Your task to perform on an android device: open app "PlayWell" (install if not already installed), go to login, and select forgot password Image 0: 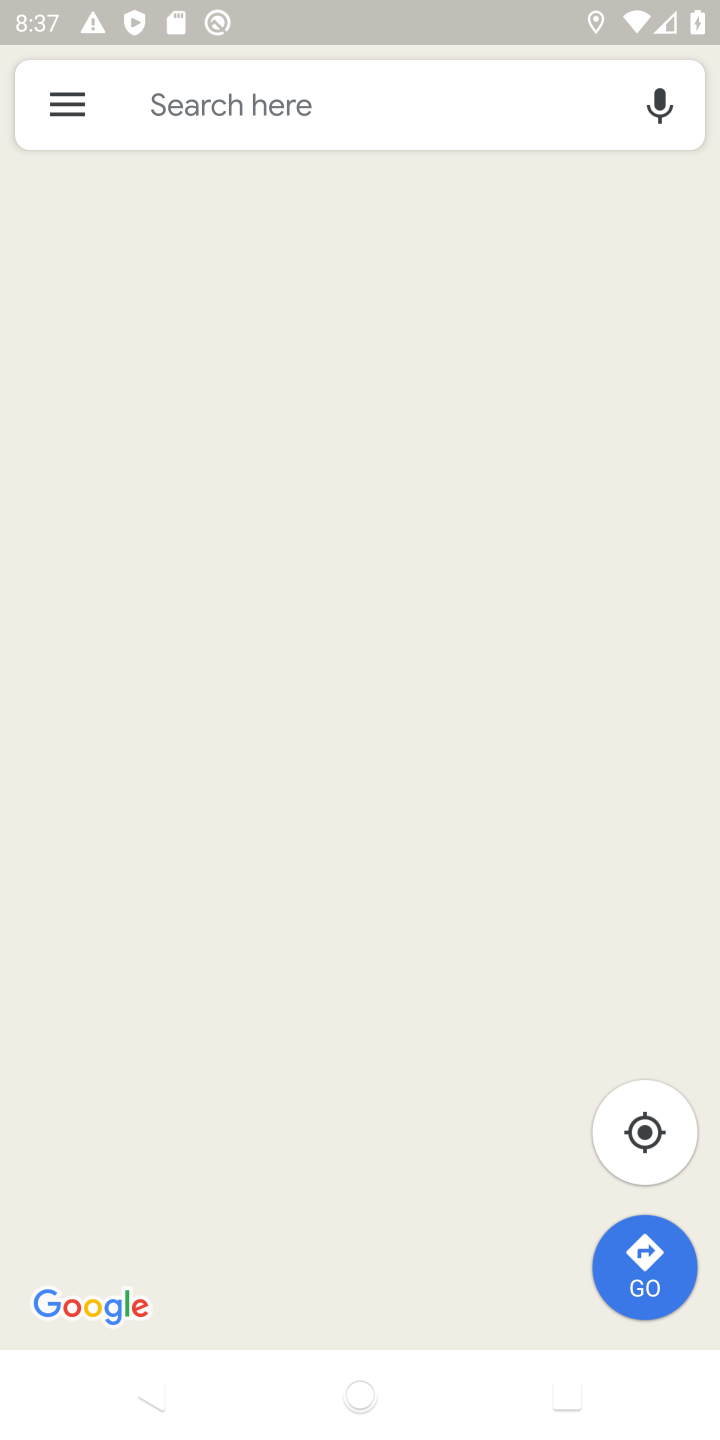
Step 0: press home button
Your task to perform on an android device: open app "PlayWell" (install if not already installed), go to login, and select forgot password Image 1: 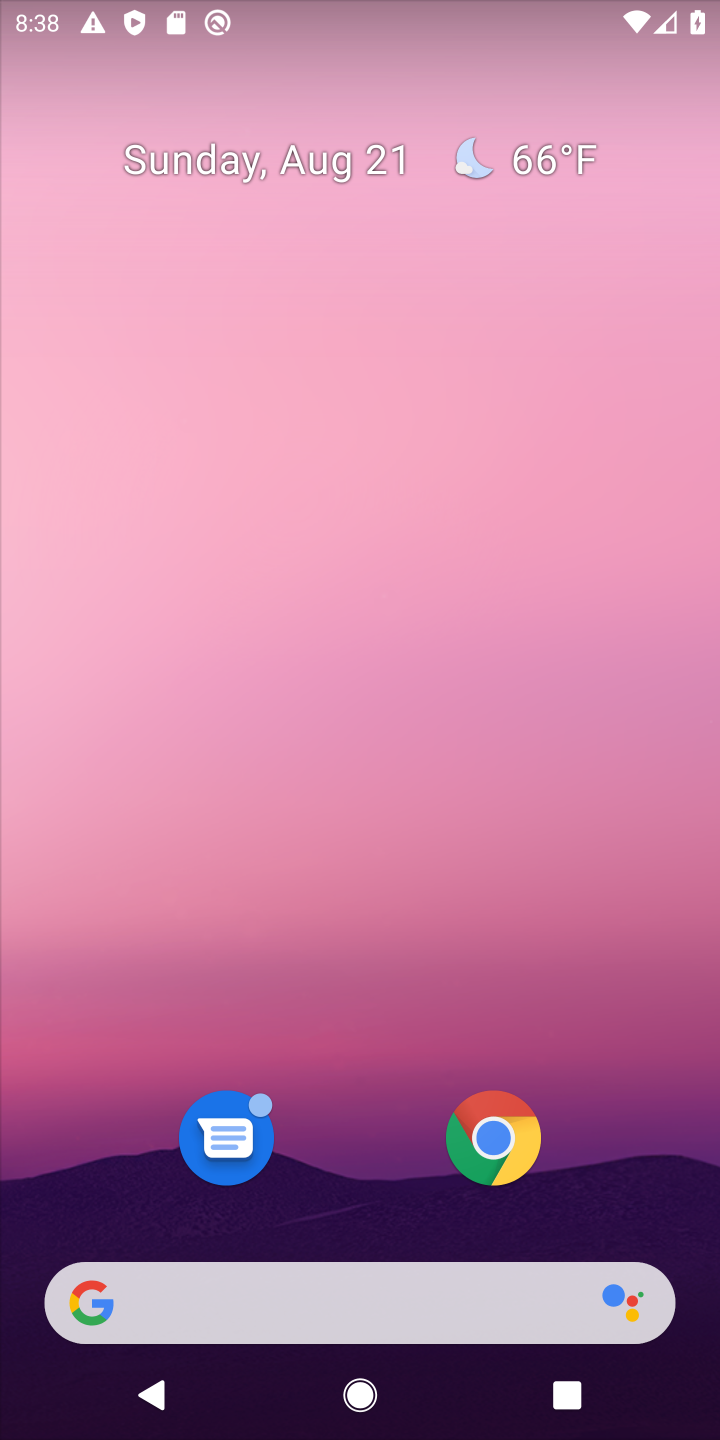
Step 1: drag from (628, 1109) to (624, 185)
Your task to perform on an android device: open app "PlayWell" (install if not already installed), go to login, and select forgot password Image 2: 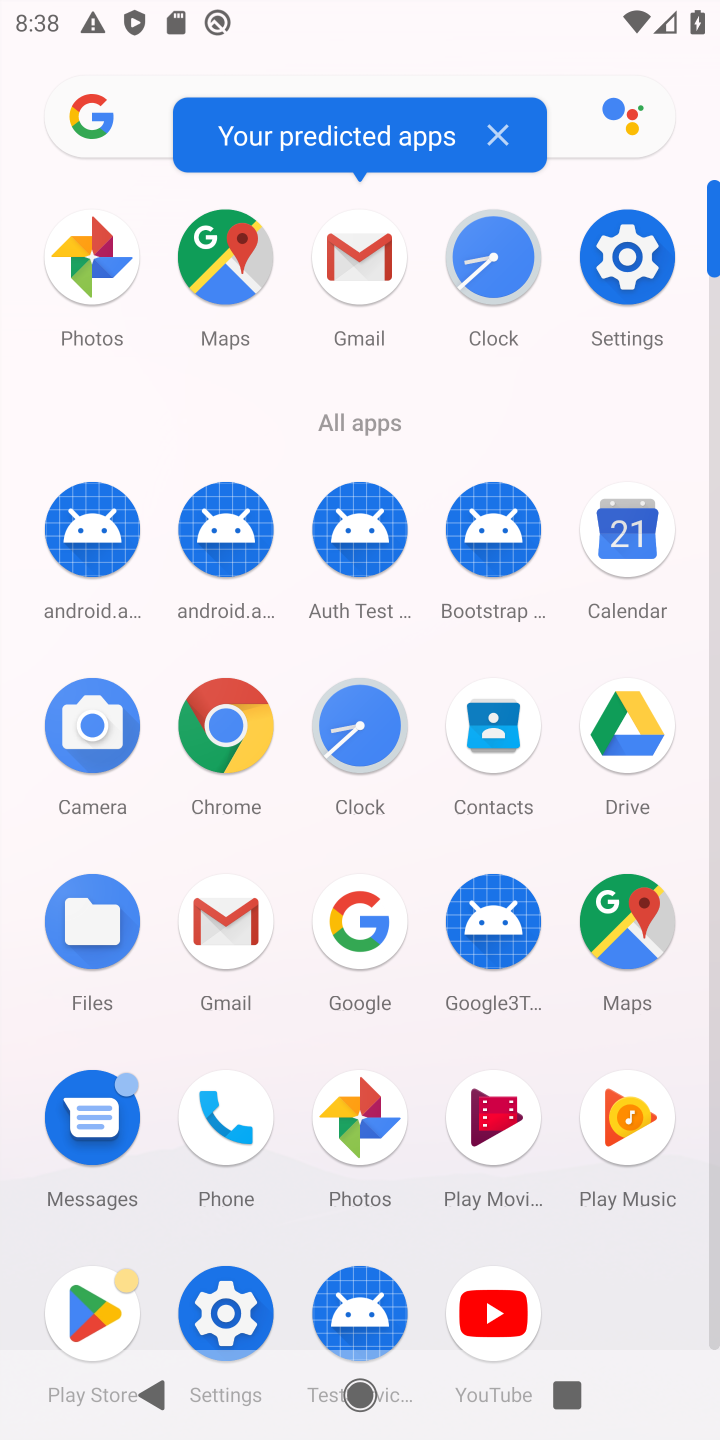
Step 2: click (95, 1300)
Your task to perform on an android device: open app "PlayWell" (install if not already installed), go to login, and select forgot password Image 3: 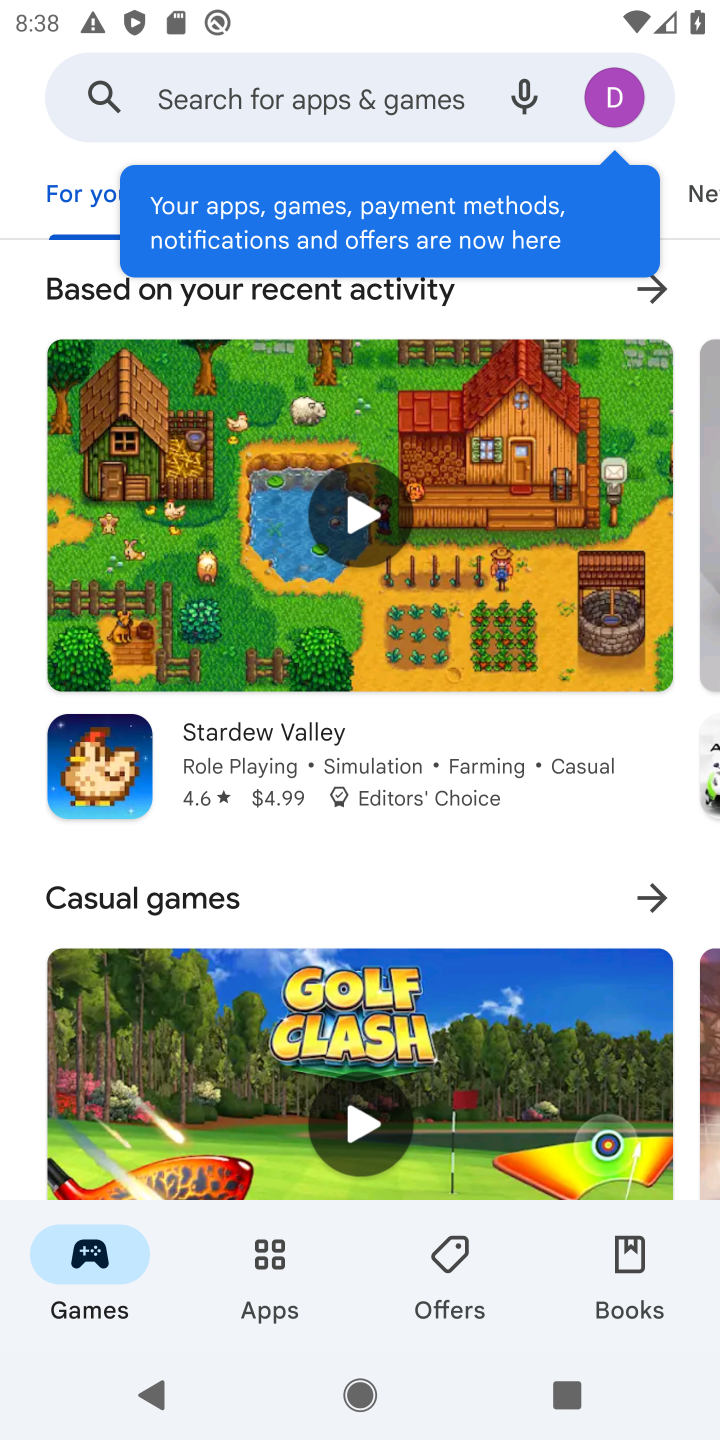
Step 3: click (367, 83)
Your task to perform on an android device: open app "PlayWell" (install if not already installed), go to login, and select forgot password Image 4: 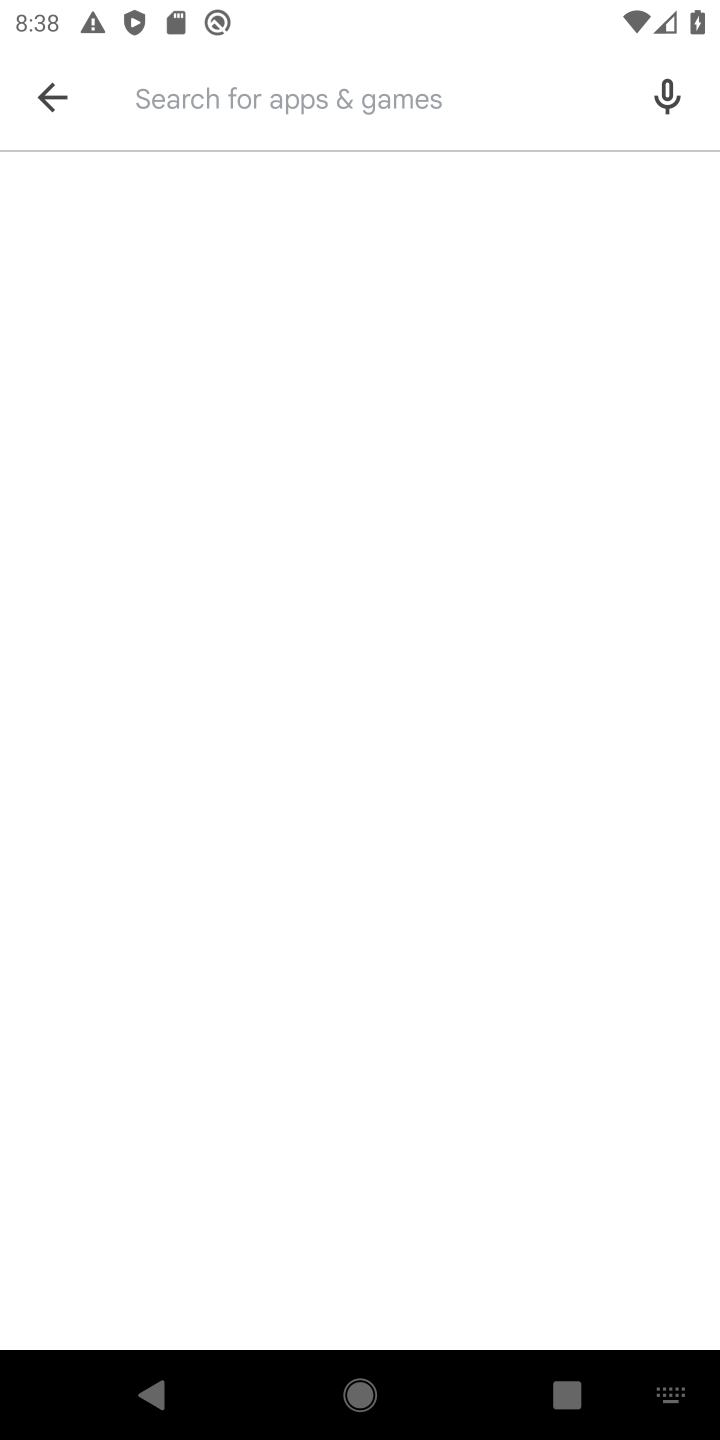
Step 4: type "play well"
Your task to perform on an android device: open app "PlayWell" (install if not already installed), go to login, and select forgot password Image 5: 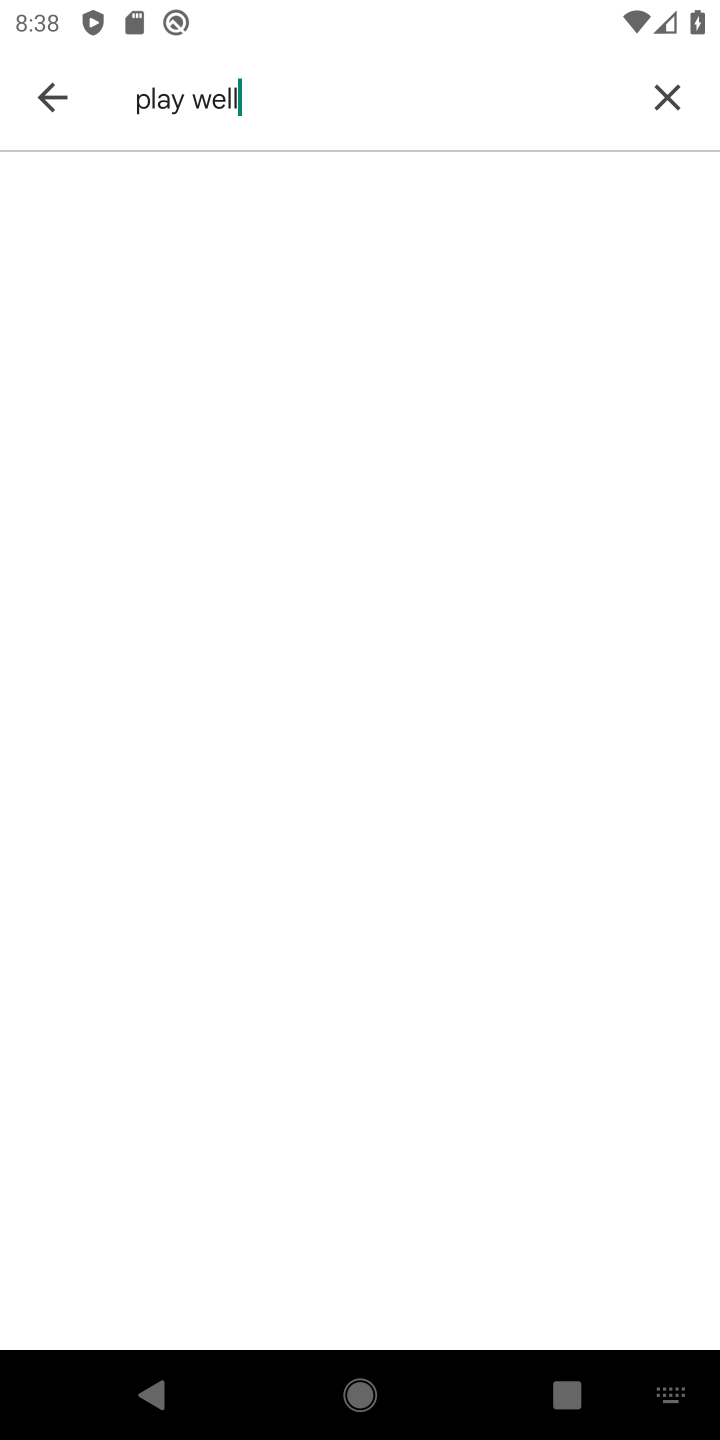
Step 5: press enter
Your task to perform on an android device: open app "PlayWell" (install if not already installed), go to login, and select forgot password Image 6: 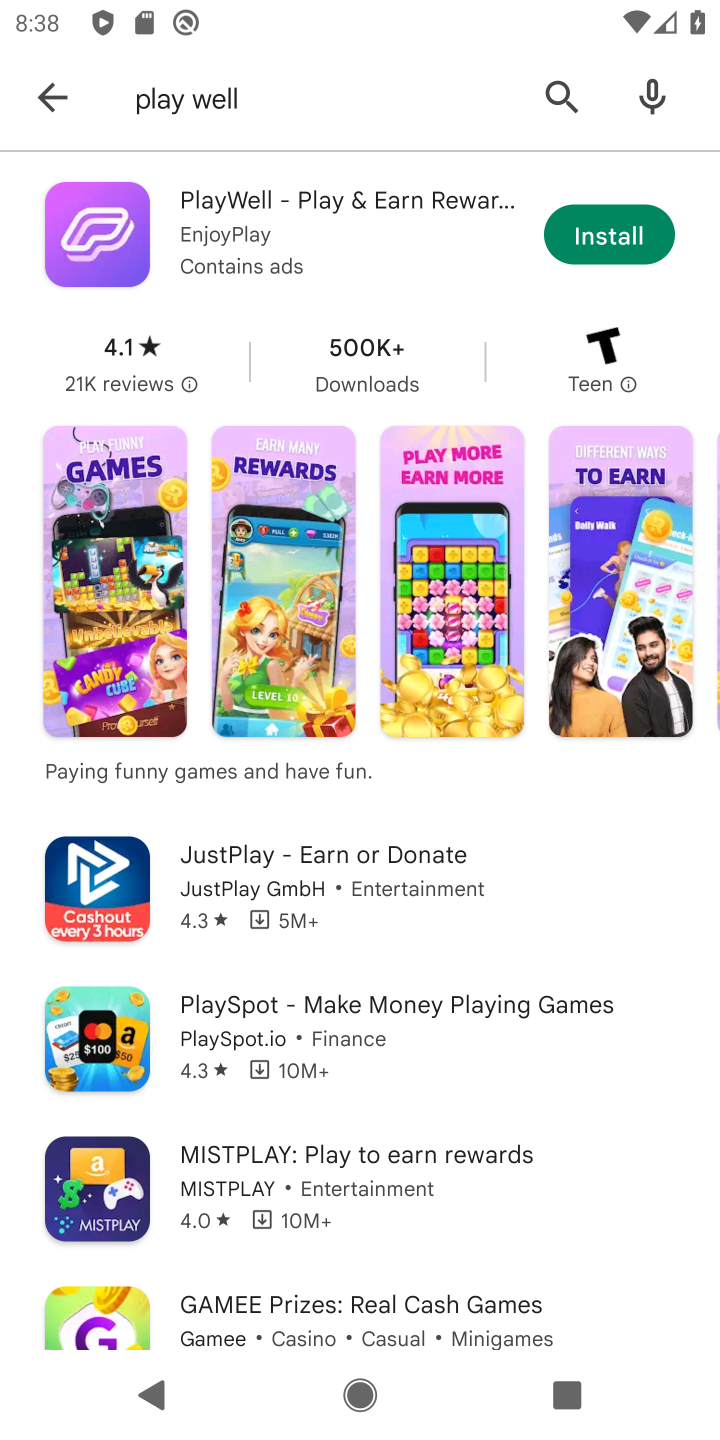
Step 6: click (616, 241)
Your task to perform on an android device: open app "PlayWell" (install if not already installed), go to login, and select forgot password Image 7: 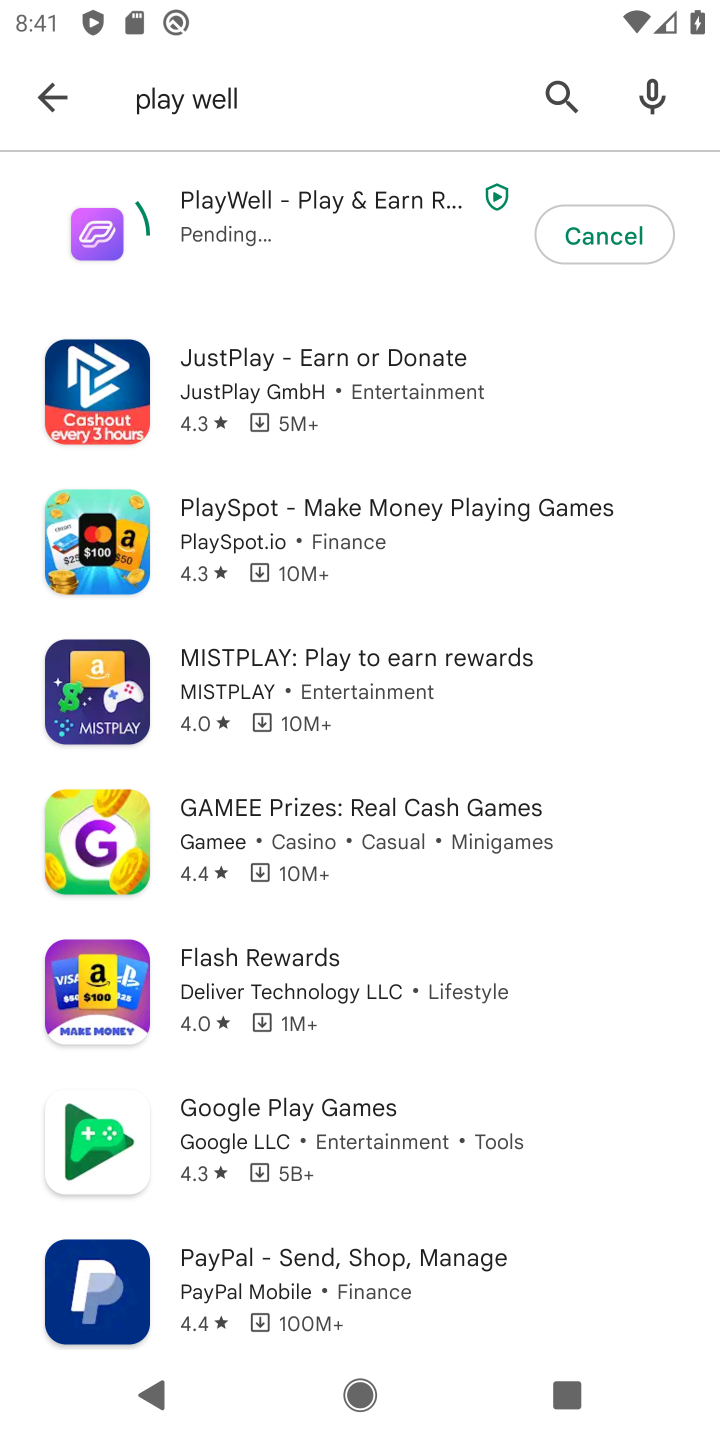
Step 7: task complete